Your task to perform on an android device: turn off smart reply in the gmail app Image 0: 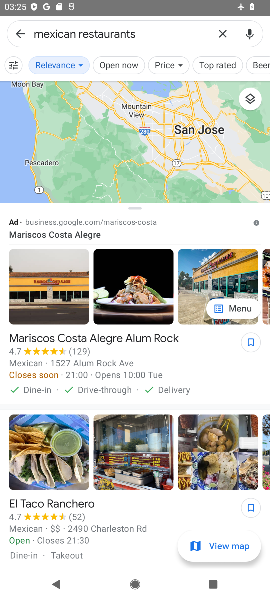
Step 0: press home button
Your task to perform on an android device: turn off smart reply in the gmail app Image 1: 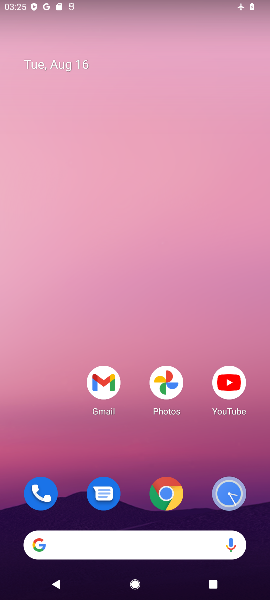
Step 1: drag from (60, 462) to (97, 53)
Your task to perform on an android device: turn off smart reply in the gmail app Image 2: 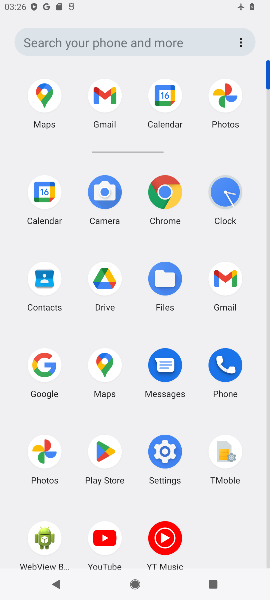
Step 2: click (224, 278)
Your task to perform on an android device: turn off smart reply in the gmail app Image 3: 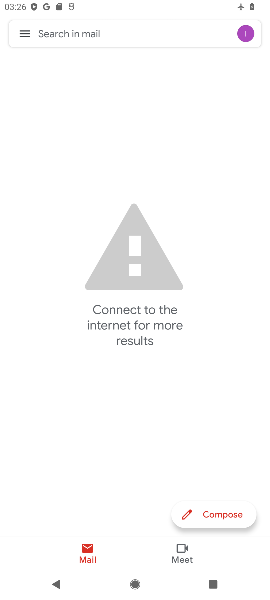
Step 3: click (24, 30)
Your task to perform on an android device: turn off smart reply in the gmail app Image 4: 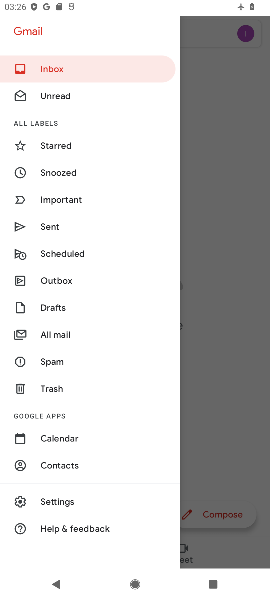
Step 4: click (75, 501)
Your task to perform on an android device: turn off smart reply in the gmail app Image 5: 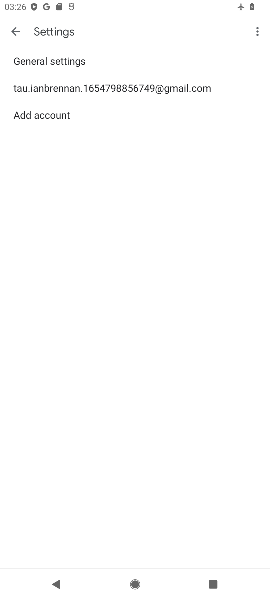
Step 5: click (180, 97)
Your task to perform on an android device: turn off smart reply in the gmail app Image 6: 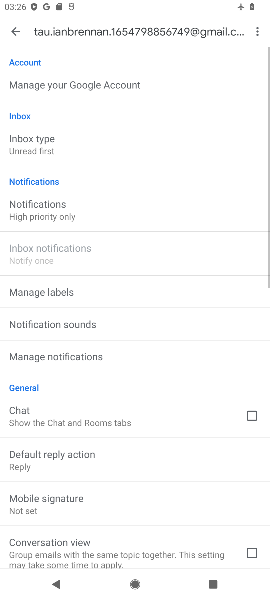
Step 6: drag from (195, 305) to (209, 244)
Your task to perform on an android device: turn off smart reply in the gmail app Image 7: 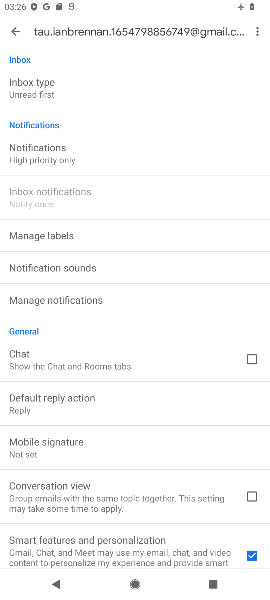
Step 7: drag from (195, 365) to (196, 288)
Your task to perform on an android device: turn off smart reply in the gmail app Image 8: 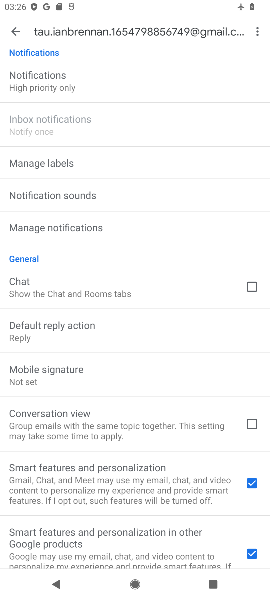
Step 8: drag from (172, 403) to (181, 267)
Your task to perform on an android device: turn off smart reply in the gmail app Image 9: 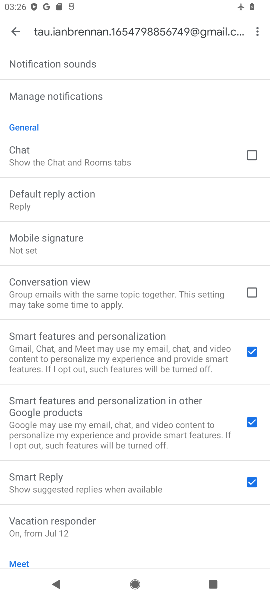
Step 9: drag from (185, 408) to (191, 302)
Your task to perform on an android device: turn off smart reply in the gmail app Image 10: 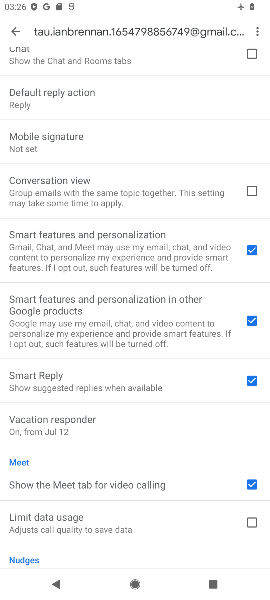
Step 10: drag from (169, 452) to (193, 291)
Your task to perform on an android device: turn off smart reply in the gmail app Image 11: 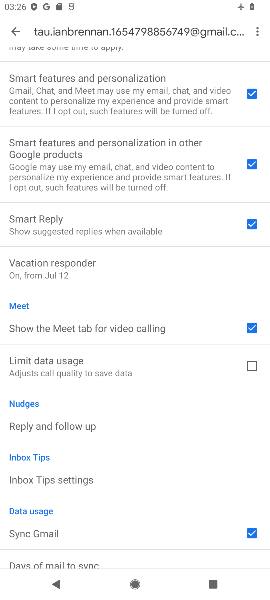
Step 11: click (256, 223)
Your task to perform on an android device: turn off smart reply in the gmail app Image 12: 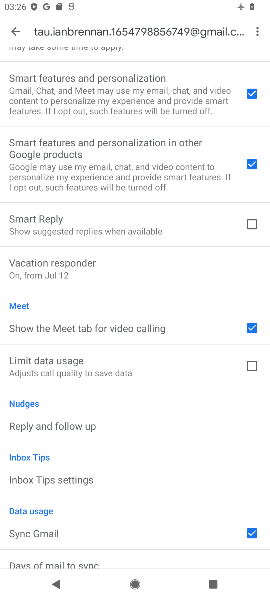
Step 12: task complete